Your task to perform on an android device: allow cookies in the chrome app Image 0: 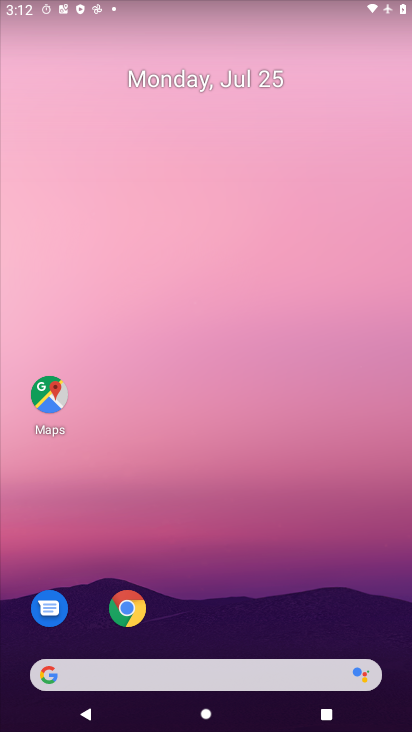
Step 0: drag from (196, 494) to (195, 132)
Your task to perform on an android device: allow cookies in the chrome app Image 1: 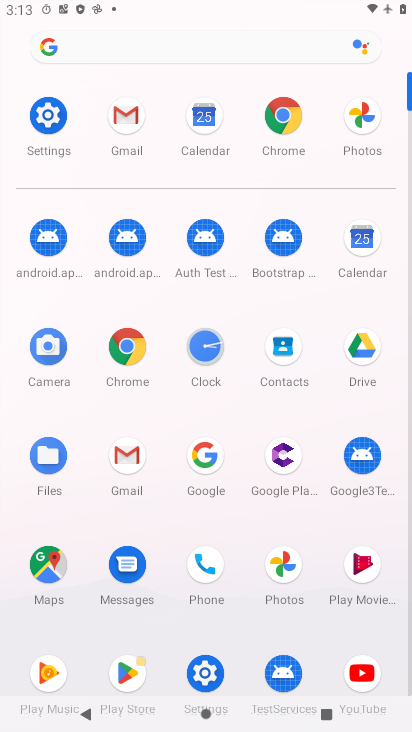
Step 1: click (273, 121)
Your task to perform on an android device: allow cookies in the chrome app Image 2: 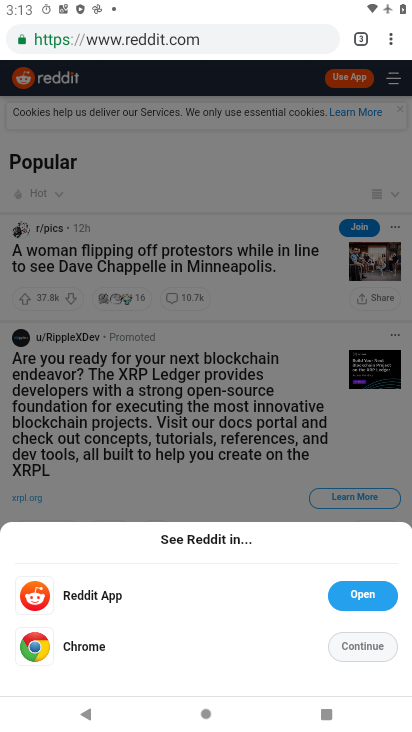
Step 2: click (396, 44)
Your task to perform on an android device: allow cookies in the chrome app Image 3: 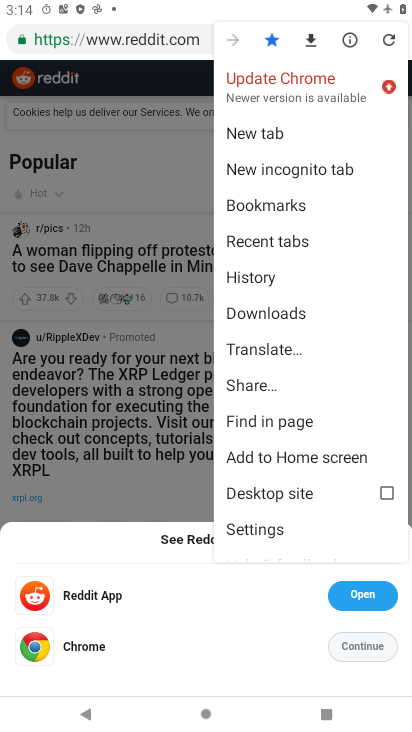
Step 3: click (298, 524)
Your task to perform on an android device: allow cookies in the chrome app Image 4: 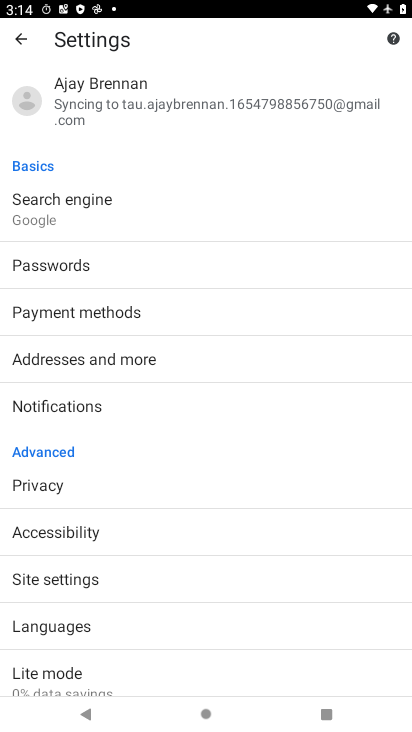
Step 4: click (74, 571)
Your task to perform on an android device: allow cookies in the chrome app Image 5: 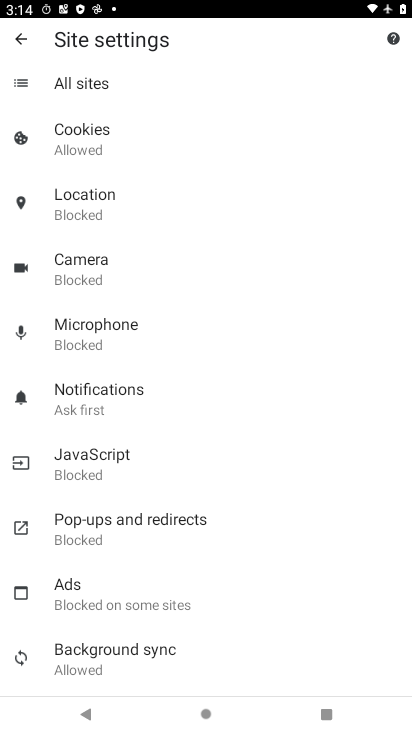
Step 5: click (89, 133)
Your task to perform on an android device: allow cookies in the chrome app Image 6: 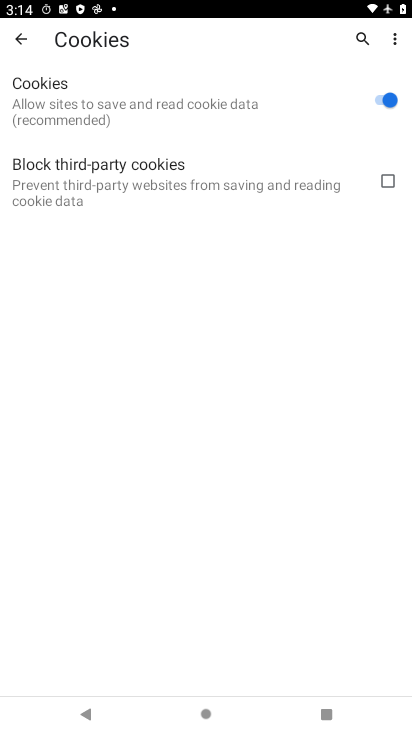
Step 6: task complete